Your task to perform on an android device: toggle priority inbox in the gmail app Image 0: 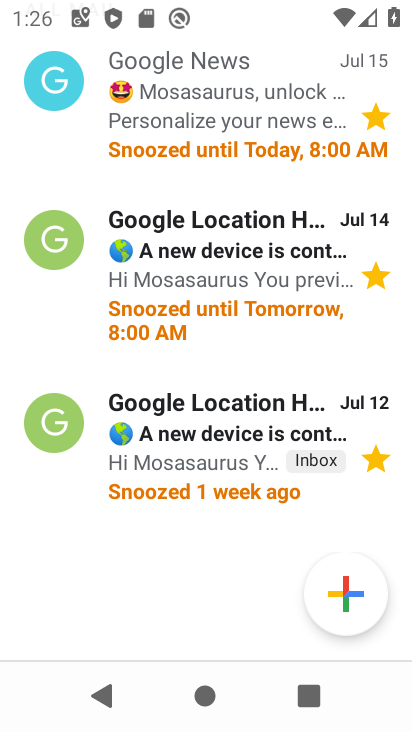
Step 0: drag from (243, 116) to (212, 682)
Your task to perform on an android device: toggle priority inbox in the gmail app Image 1: 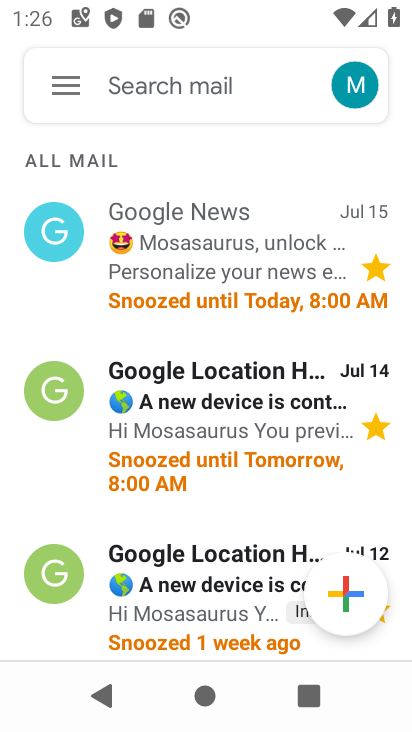
Step 1: click (55, 96)
Your task to perform on an android device: toggle priority inbox in the gmail app Image 2: 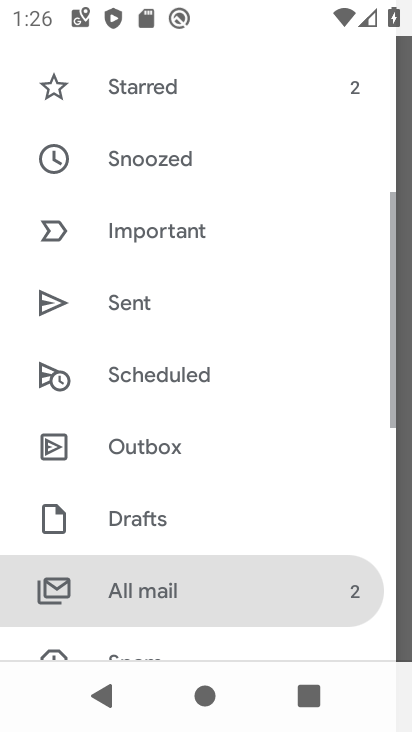
Step 2: drag from (130, 537) to (252, 66)
Your task to perform on an android device: toggle priority inbox in the gmail app Image 3: 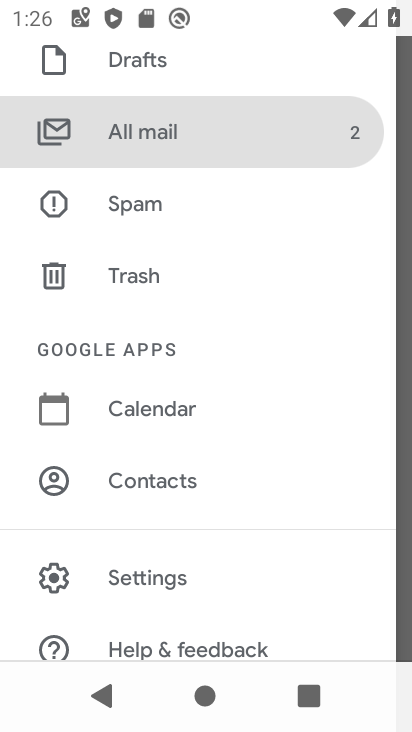
Step 3: click (153, 575)
Your task to perform on an android device: toggle priority inbox in the gmail app Image 4: 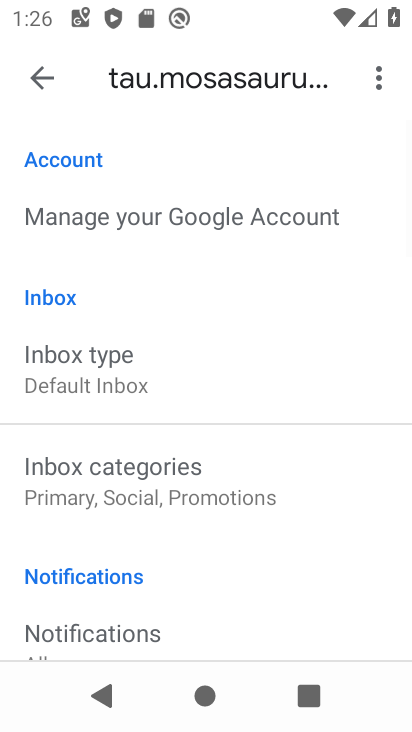
Step 4: click (90, 359)
Your task to perform on an android device: toggle priority inbox in the gmail app Image 5: 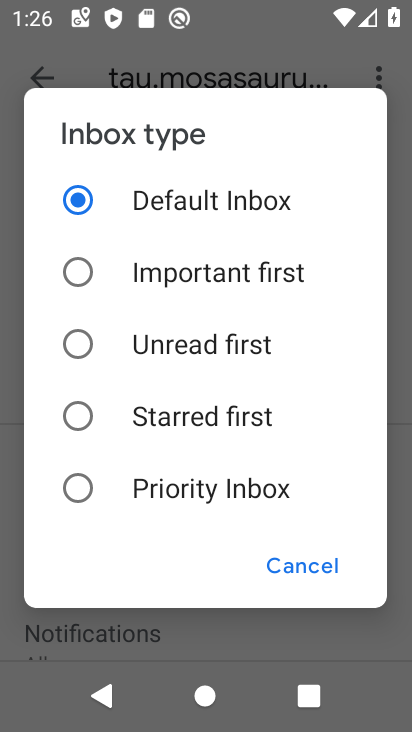
Step 5: click (68, 491)
Your task to perform on an android device: toggle priority inbox in the gmail app Image 6: 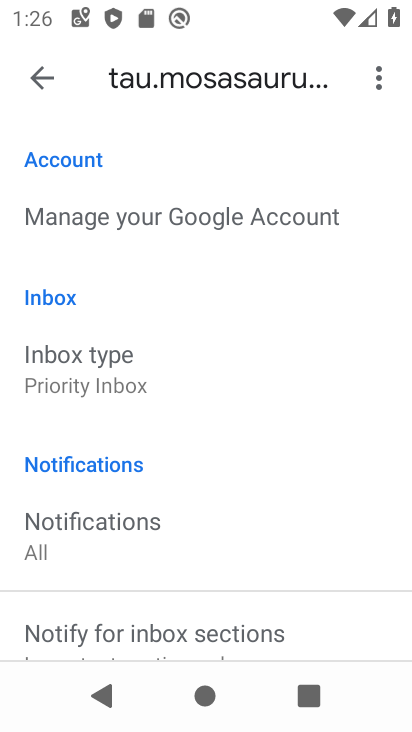
Step 6: task complete